Your task to perform on an android device: Turn on the flashlight Image 0: 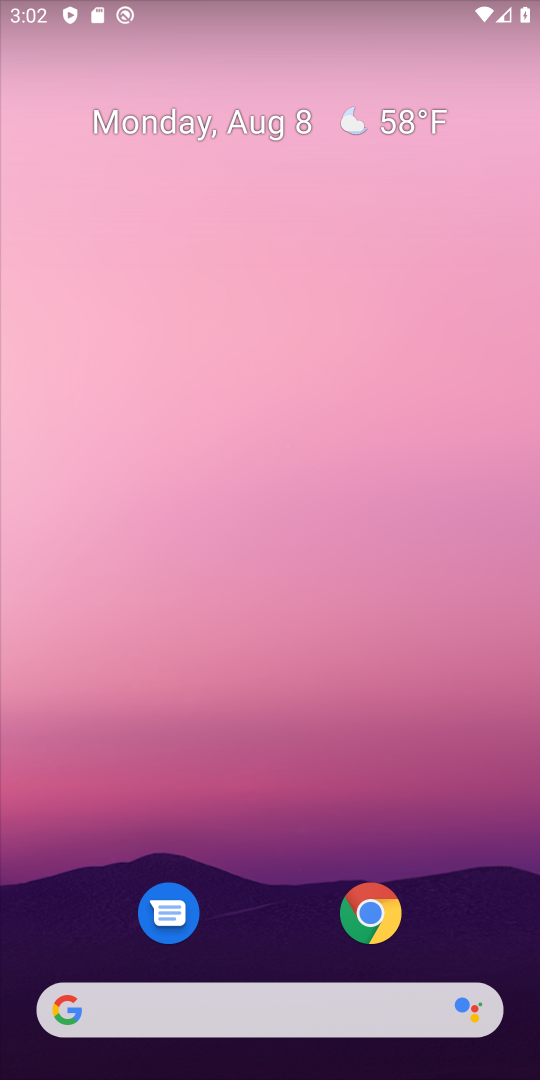
Step 0: drag from (340, 23) to (311, 498)
Your task to perform on an android device: Turn on the flashlight Image 1: 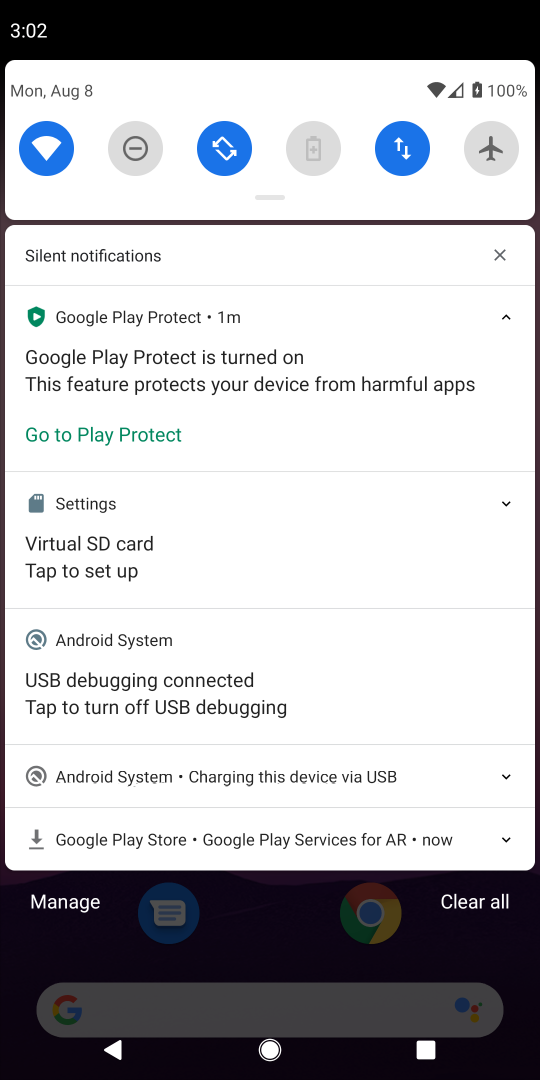
Step 1: task complete